Your task to perform on an android device: turn off wifi Image 0: 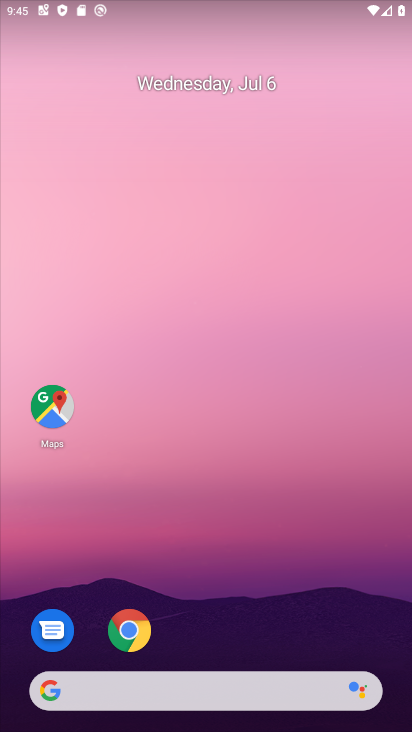
Step 0: drag from (374, 634) to (288, 158)
Your task to perform on an android device: turn off wifi Image 1: 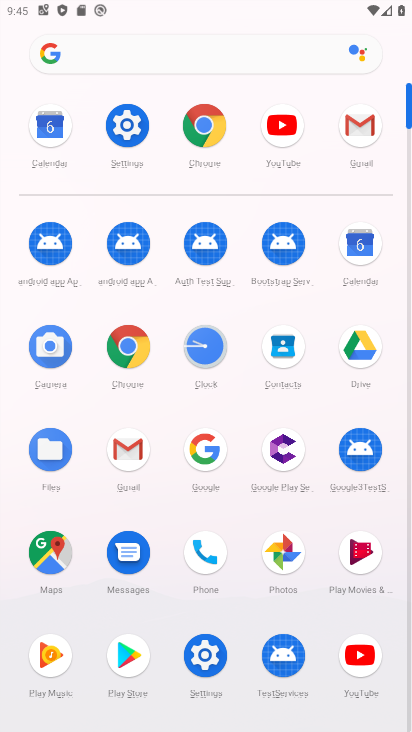
Step 1: click (205, 655)
Your task to perform on an android device: turn off wifi Image 2: 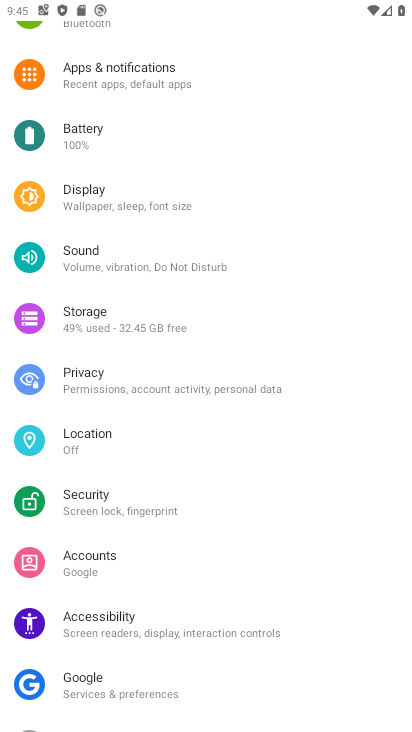
Step 2: drag from (277, 87) to (295, 361)
Your task to perform on an android device: turn off wifi Image 3: 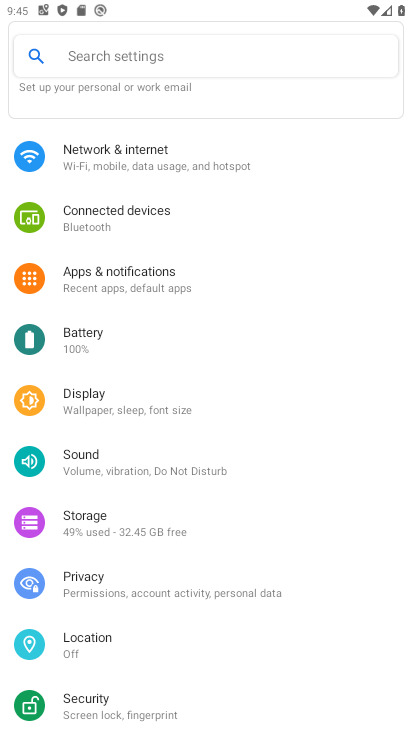
Step 3: click (95, 152)
Your task to perform on an android device: turn off wifi Image 4: 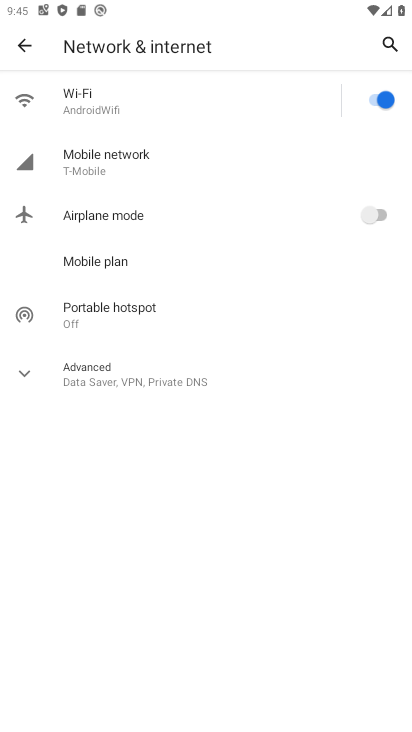
Step 4: click (369, 98)
Your task to perform on an android device: turn off wifi Image 5: 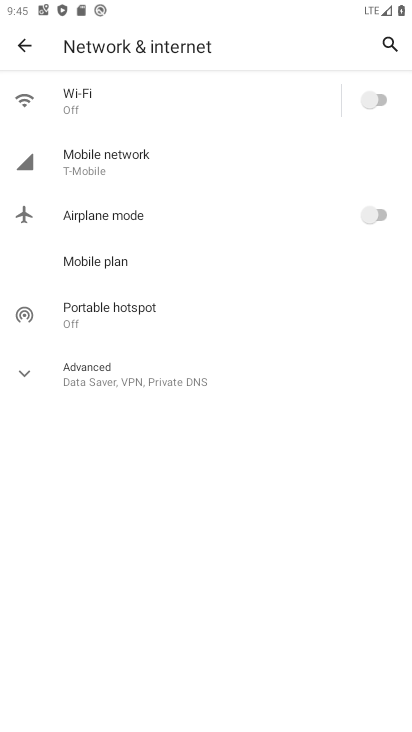
Step 5: task complete